Your task to perform on an android device: turn on wifi Image 0: 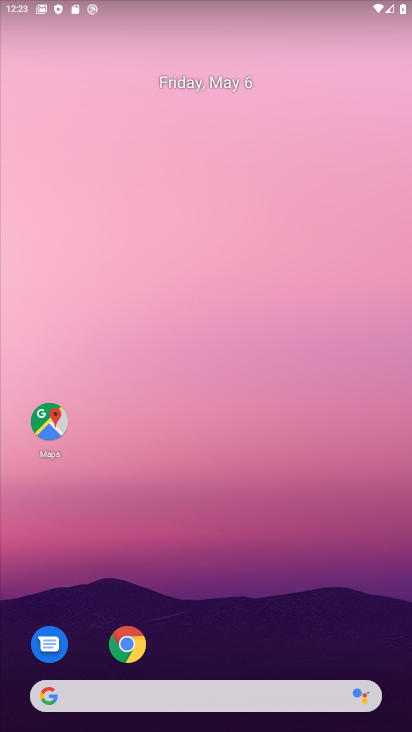
Step 0: drag from (299, 702) to (238, 101)
Your task to perform on an android device: turn on wifi Image 1: 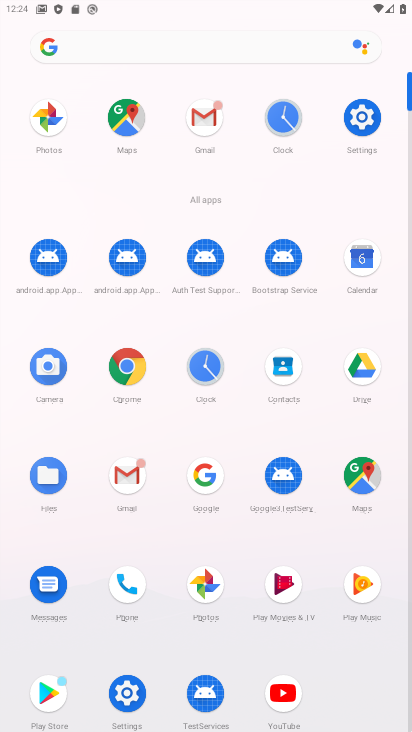
Step 1: click (363, 121)
Your task to perform on an android device: turn on wifi Image 2: 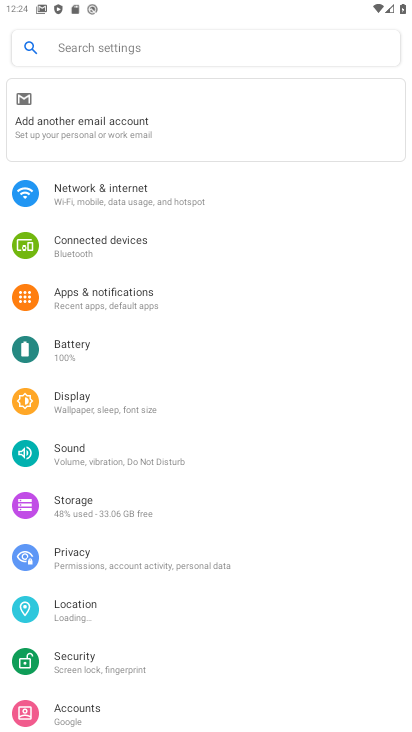
Step 2: click (169, 203)
Your task to perform on an android device: turn on wifi Image 3: 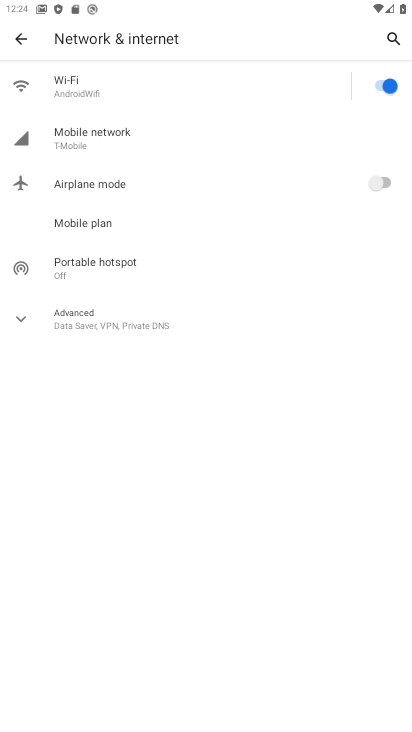
Step 3: task complete